Your task to perform on an android device: delete the emails in spam in the gmail app Image 0: 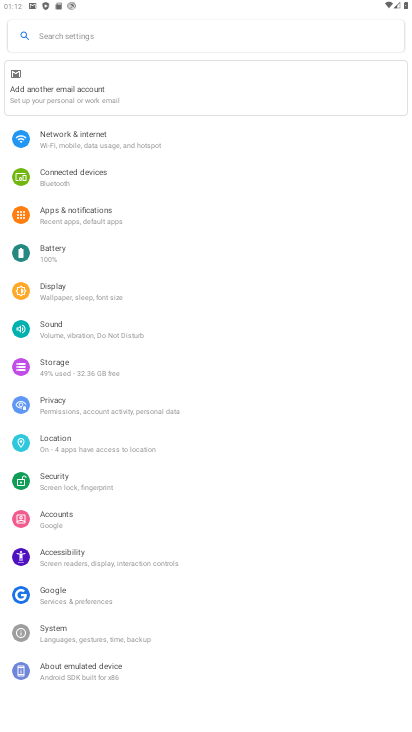
Step 0: press home button
Your task to perform on an android device: delete the emails in spam in the gmail app Image 1: 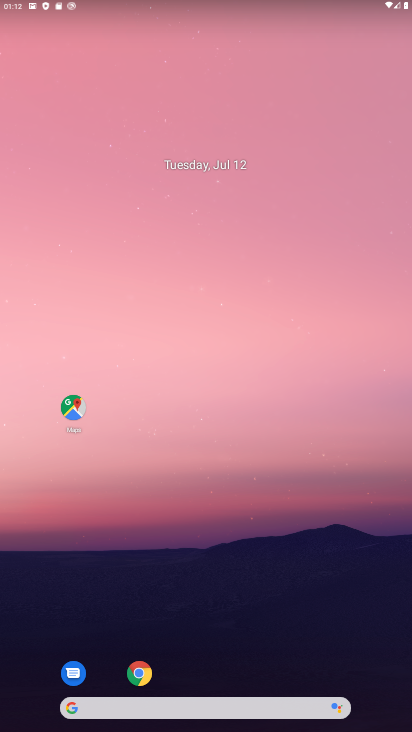
Step 1: drag from (266, 644) to (211, 0)
Your task to perform on an android device: delete the emails in spam in the gmail app Image 2: 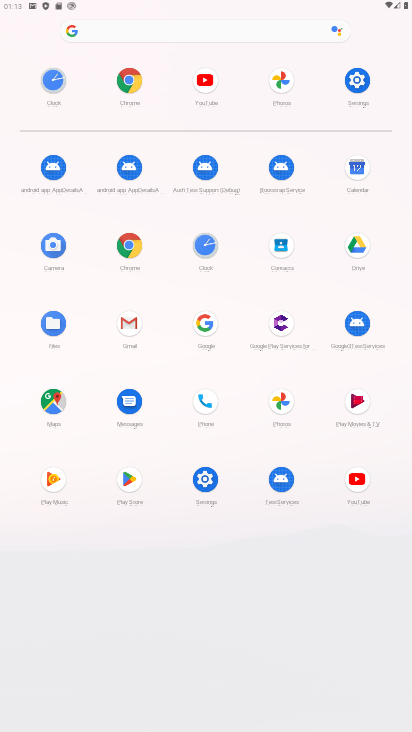
Step 2: click (127, 317)
Your task to perform on an android device: delete the emails in spam in the gmail app Image 3: 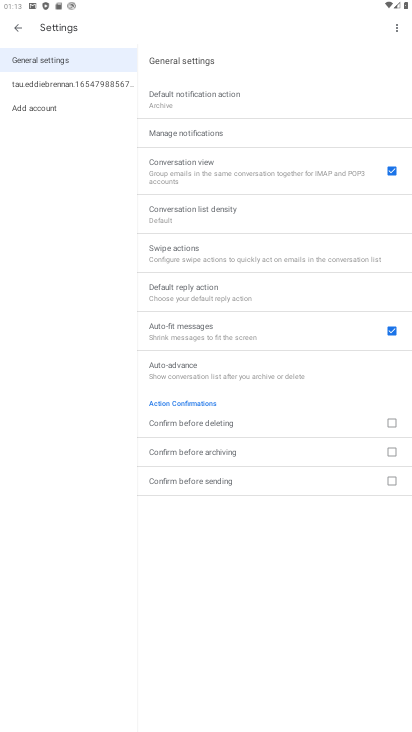
Step 3: click (44, 76)
Your task to perform on an android device: delete the emails in spam in the gmail app Image 4: 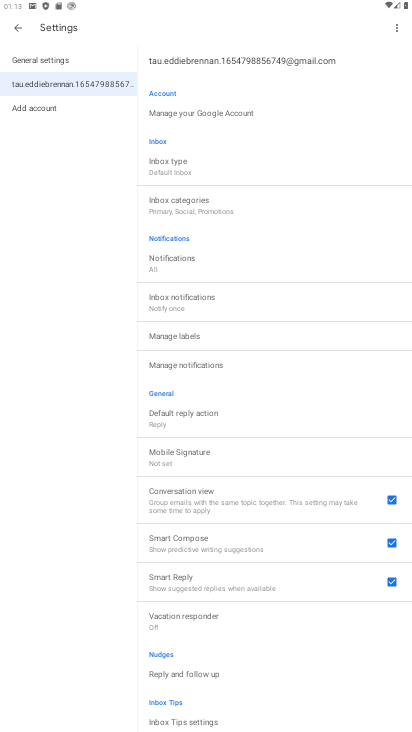
Step 4: click (16, 22)
Your task to perform on an android device: delete the emails in spam in the gmail app Image 5: 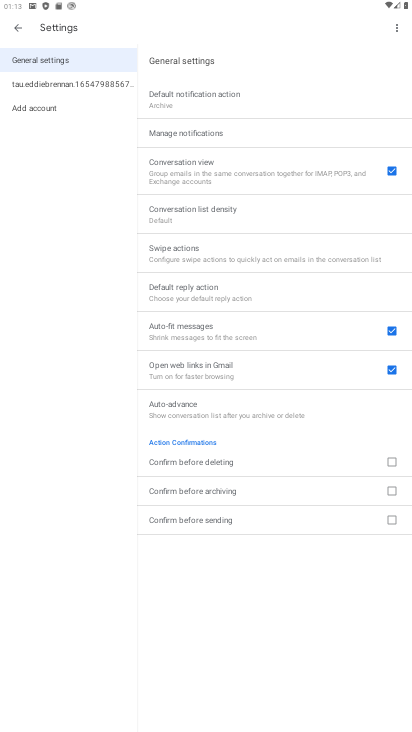
Step 5: click (16, 22)
Your task to perform on an android device: delete the emails in spam in the gmail app Image 6: 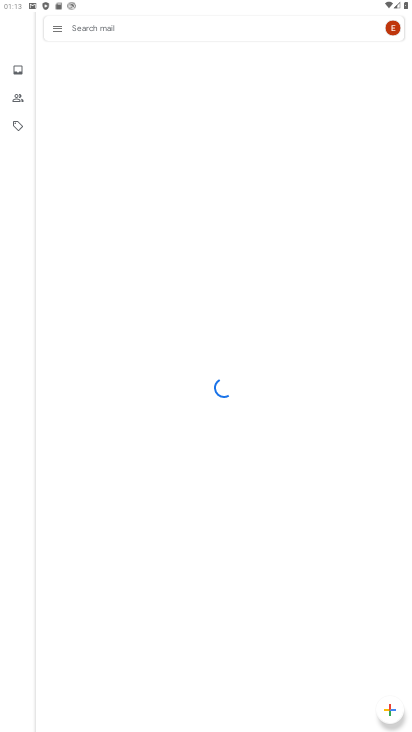
Step 6: click (60, 23)
Your task to perform on an android device: delete the emails in spam in the gmail app Image 7: 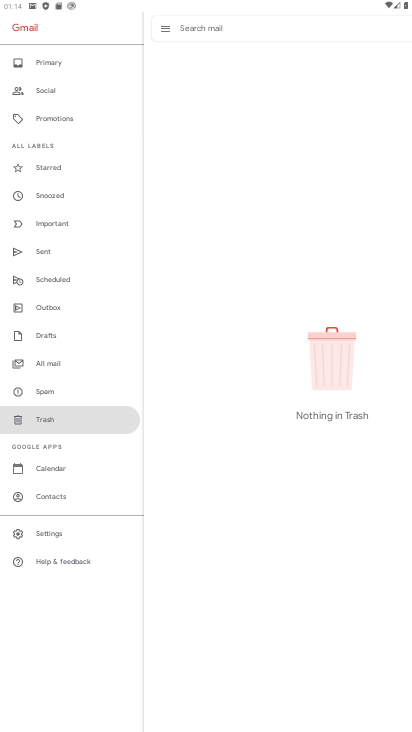
Step 7: click (52, 390)
Your task to perform on an android device: delete the emails in spam in the gmail app Image 8: 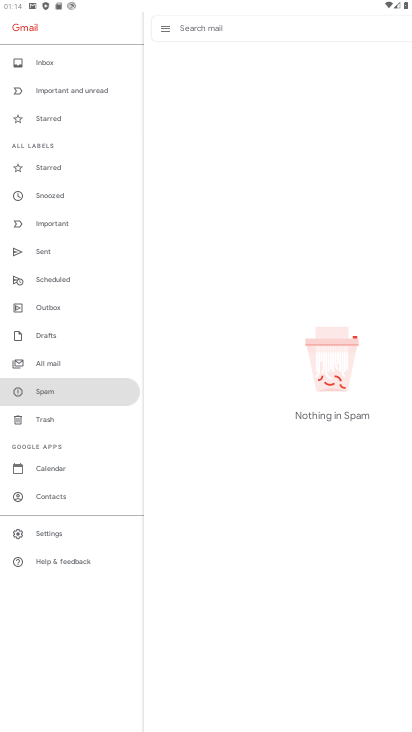
Step 8: click (34, 385)
Your task to perform on an android device: delete the emails in spam in the gmail app Image 9: 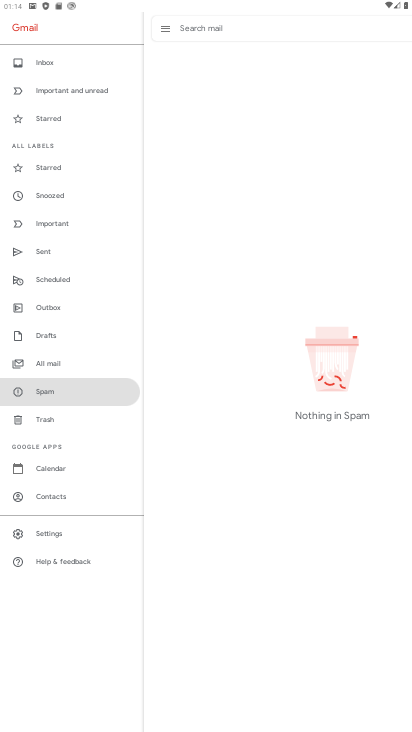
Step 9: task complete